Your task to perform on an android device: toggle data saver in the chrome app Image 0: 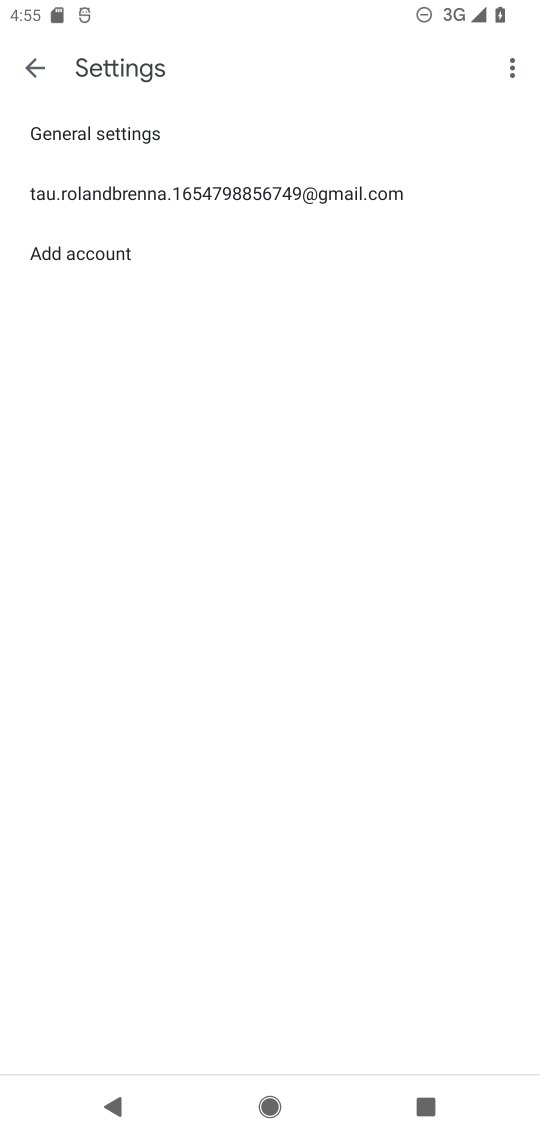
Step 0: press home button
Your task to perform on an android device: toggle data saver in the chrome app Image 1: 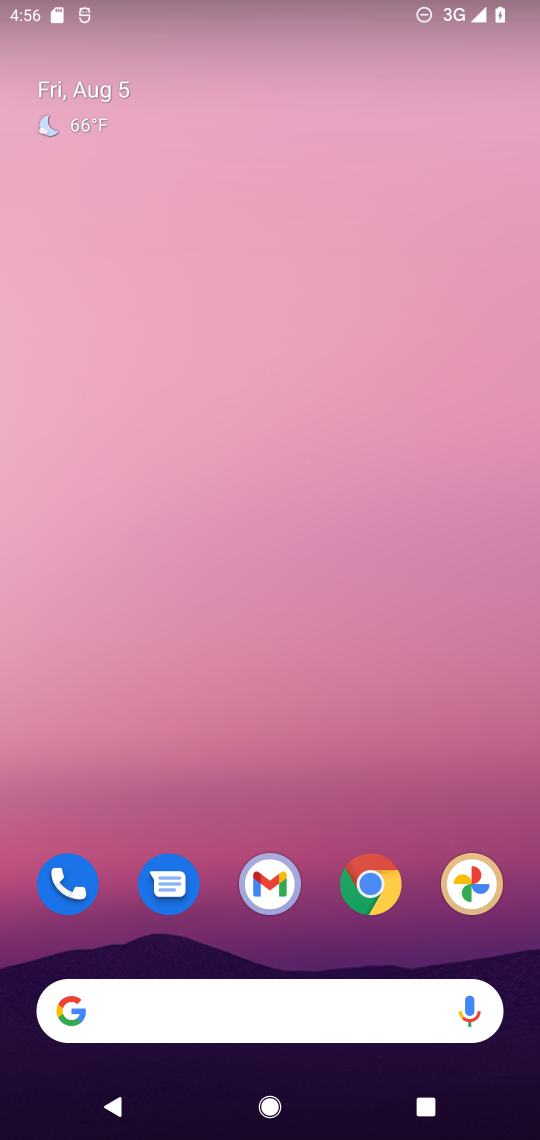
Step 1: drag from (504, 956) to (239, 92)
Your task to perform on an android device: toggle data saver in the chrome app Image 2: 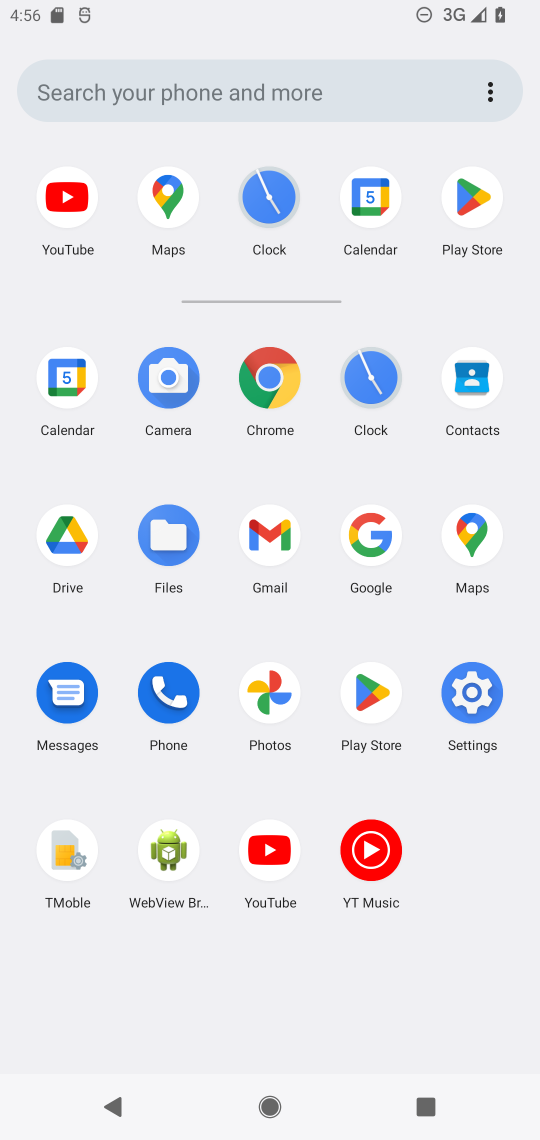
Step 2: click (266, 373)
Your task to perform on an android device: toggle data saver in the chrome app Image 3: 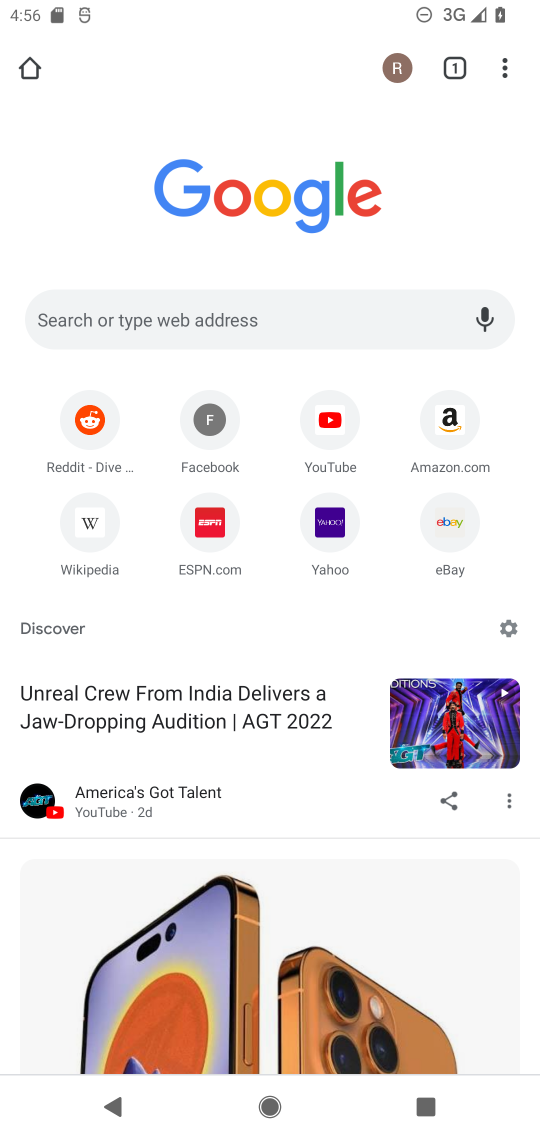
Step 3: click (505, 67)
Your task to perform on an android device: toggle data saver in the chrome app Image 4: 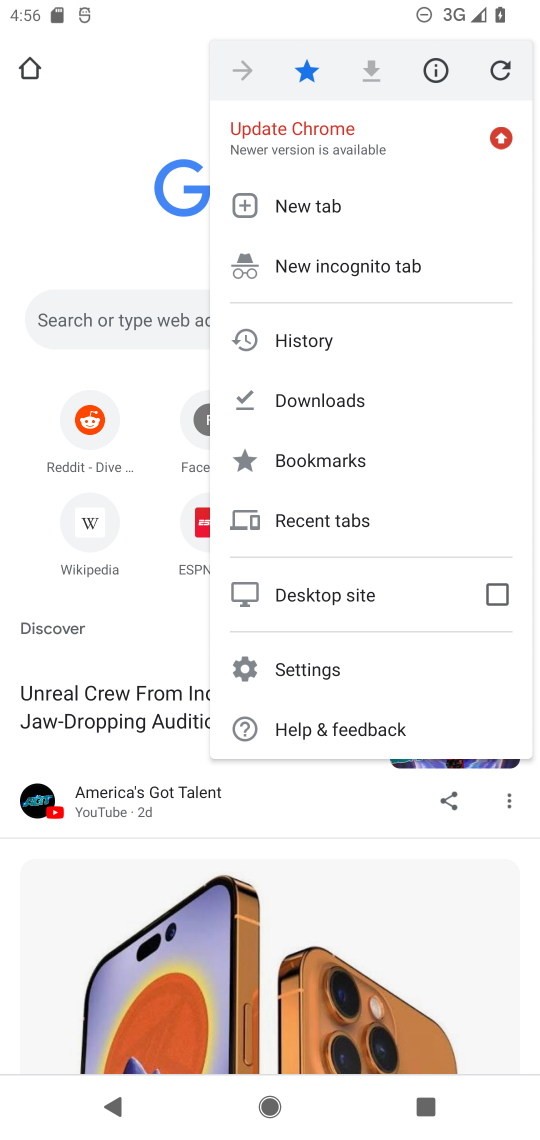
Step 4: click (296, 677)
Your task to perform on an android device: toggle data saver in the chrome app Image 5: 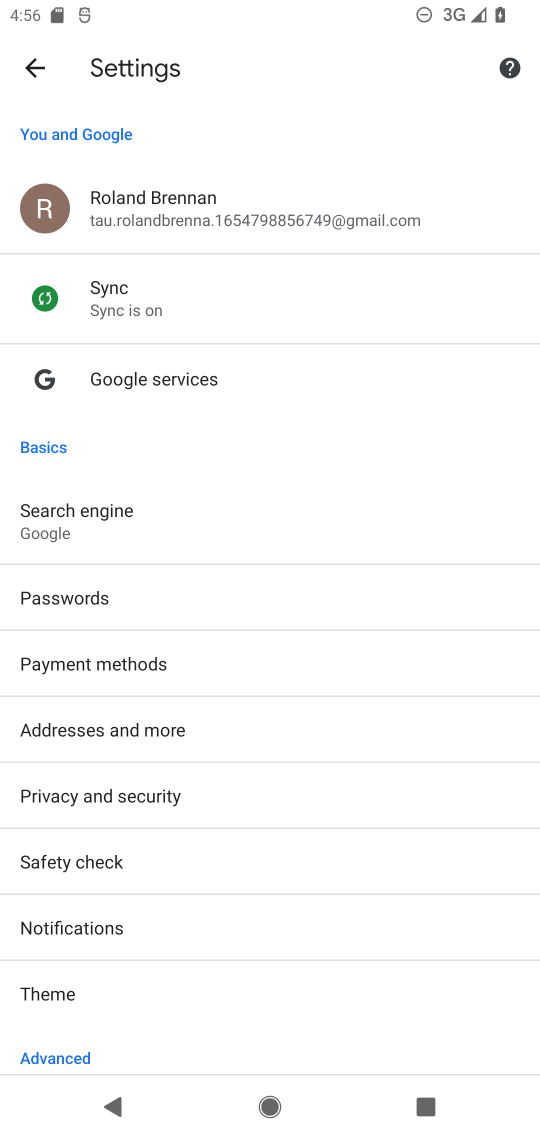
Step 5: drag from (151, 1038) to (144, 246)
Your task to perform on an android device: toggle data saver in the chrome app Image 6: 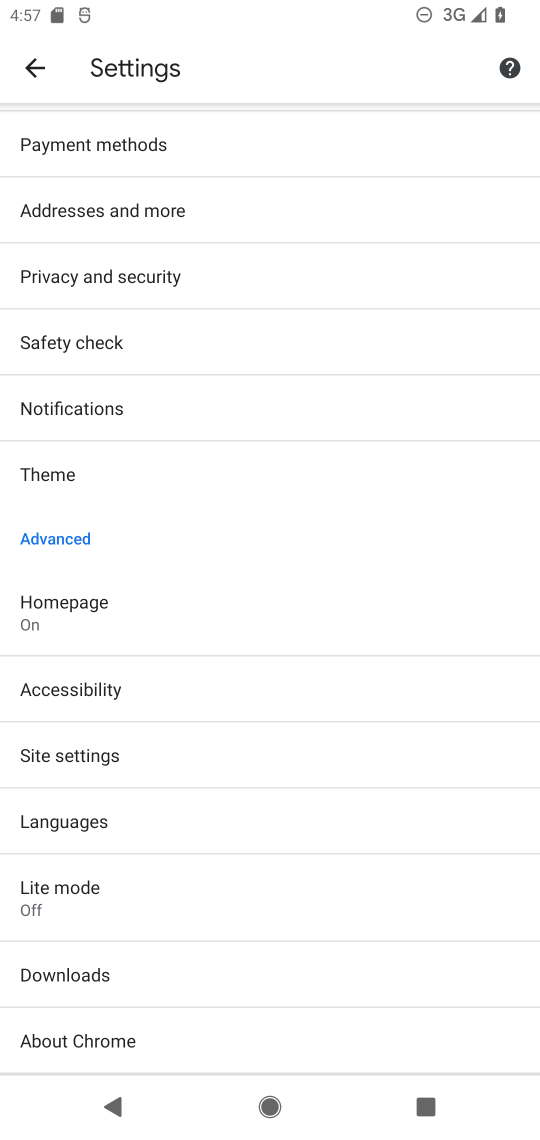
Step 6: click (146, 887)
Your task to perform on an android device: toggle data saver in the chrome app Image 7: 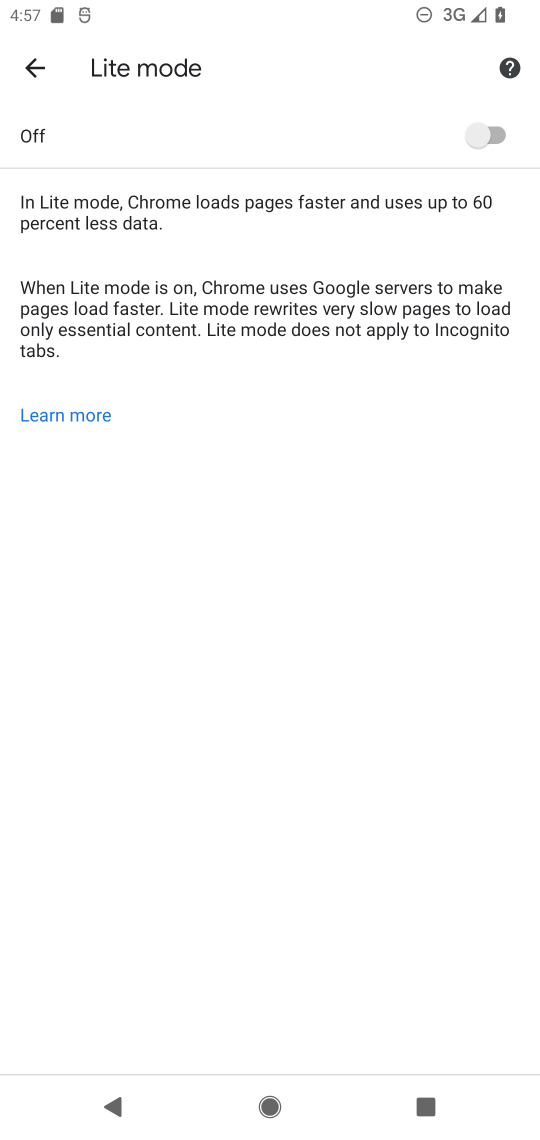
Step 7: click (491, 138)
Your task to perform on an android device: toggle data saver in the chrome app Image 8: 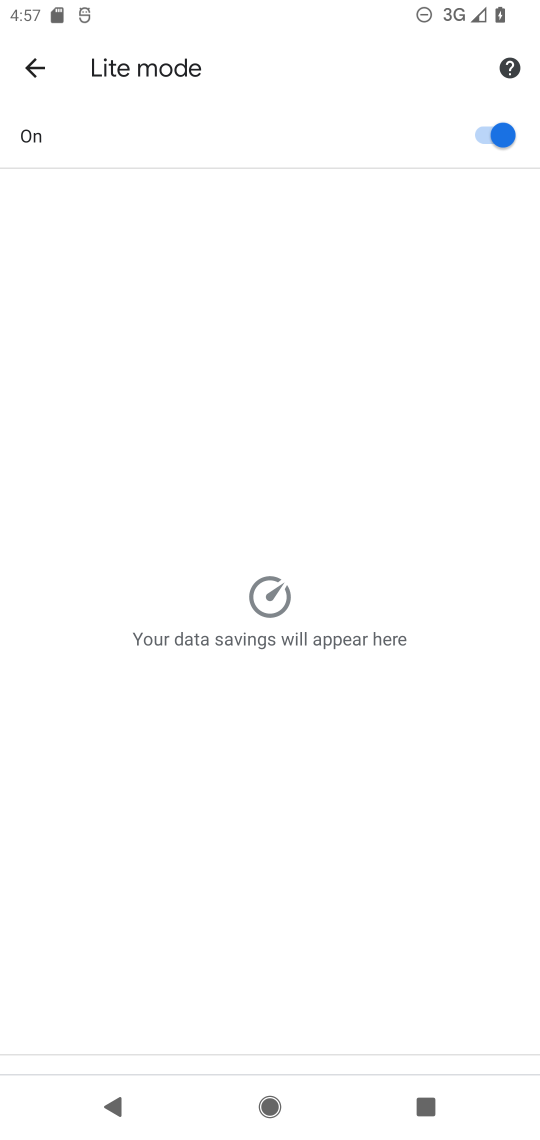
Step 8: task complete